Your task to perform on an android device: open app "YouTube Kids" (install if not already installed) Image 0: 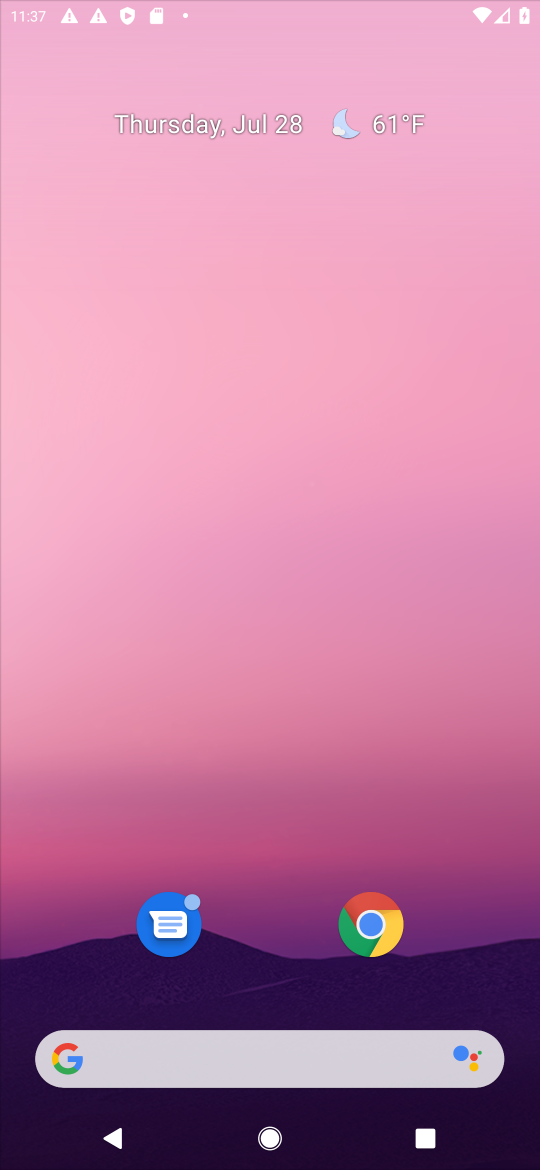
Step 0: press home button
Your task to perform on an android device: open app "YouTube Kids" (install if not already installed) Image 1: 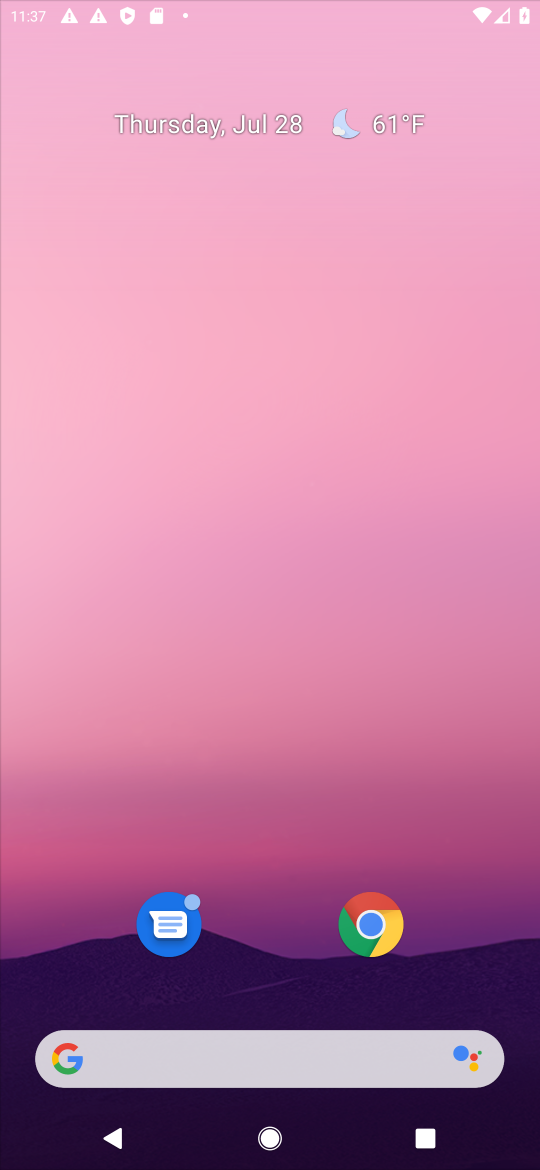
Step 1: drag from (209, 1042) to (190, 352)
Your task to perform on an android device: open app "YouTube Kids" (install if not already installed) Image 2: 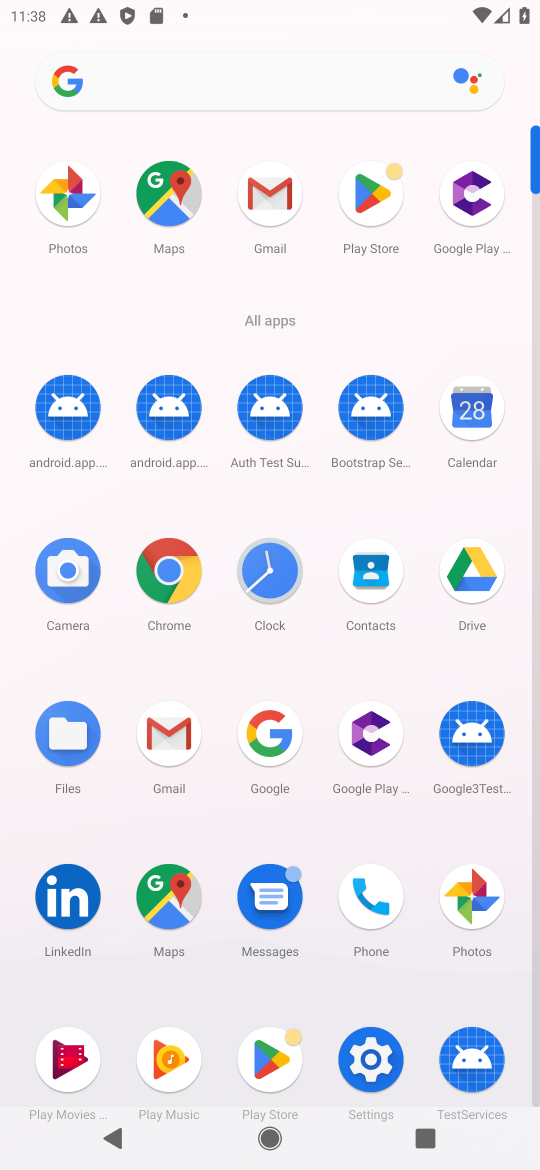
Step 2: click (362, 202)
Your task to perform on an android device: open app "YouTube Kids" (install if not already installed) Image 3: 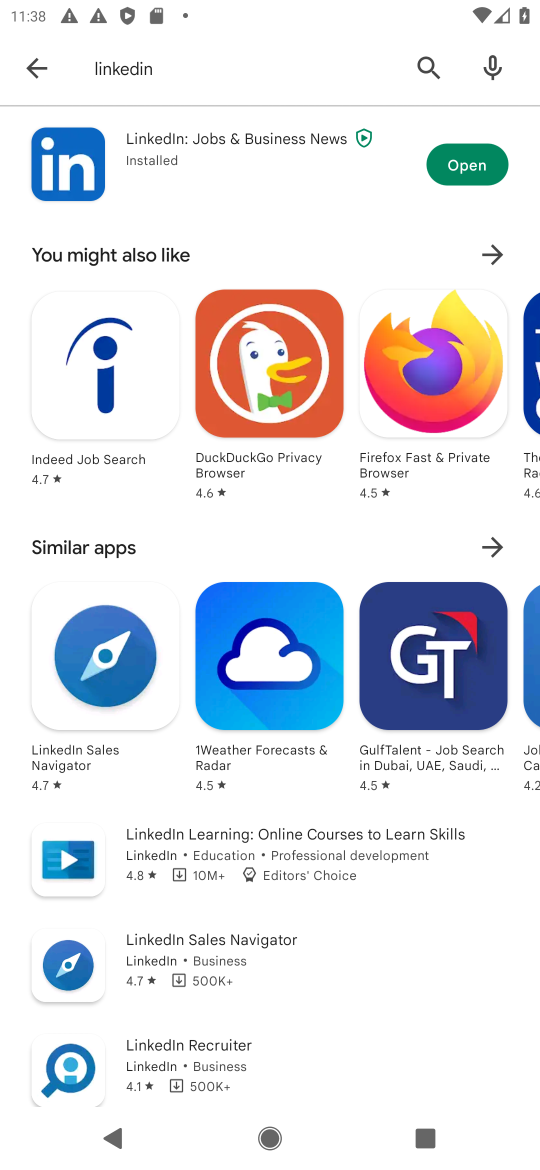
Step 3: click (39, 62)
Your task to perform on an android device: open app "YouTube Kids" (install if not already installed) Image 4: 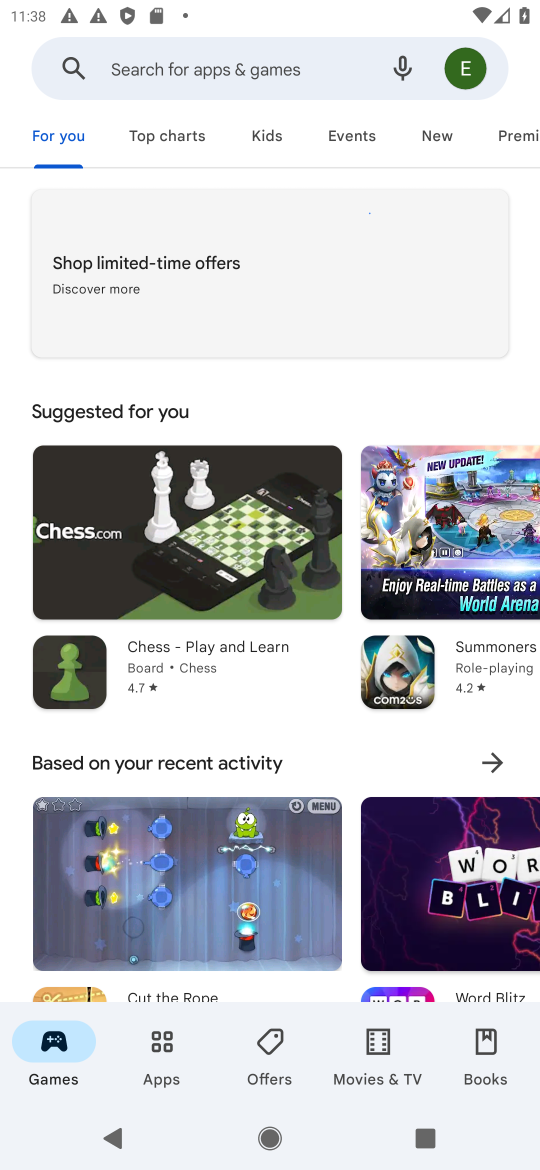
Step 4: click (156, 75)
Your task to perform on an android device: open app "YouTube Kids" (install if not already installed) Image 5: 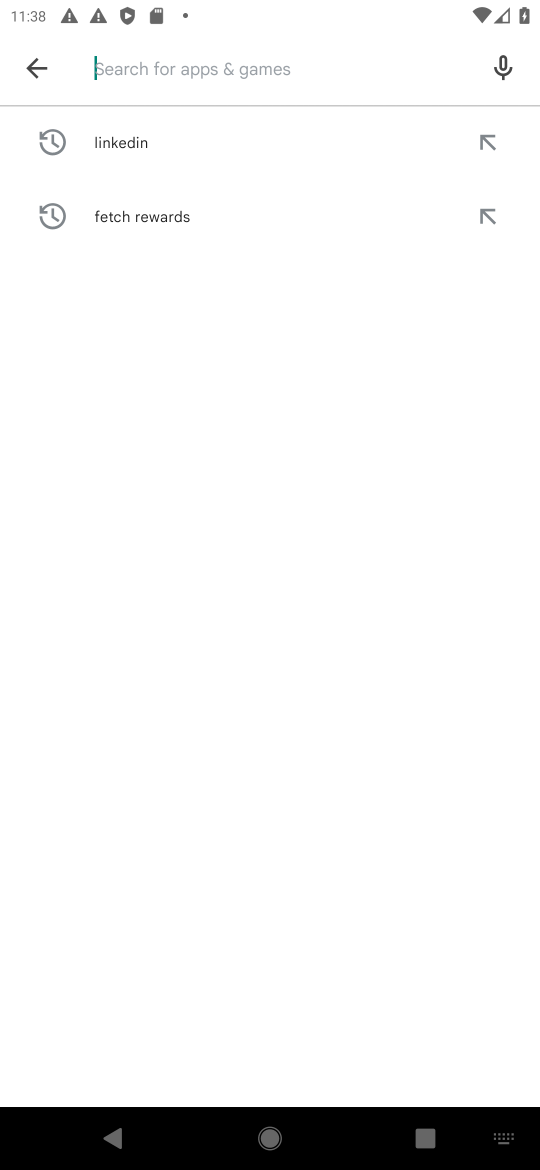
Step 5: type "YouTube Kids"
Your task to perform on an android device: open app "YouTube Kids" (install if not already installed) Image 6: 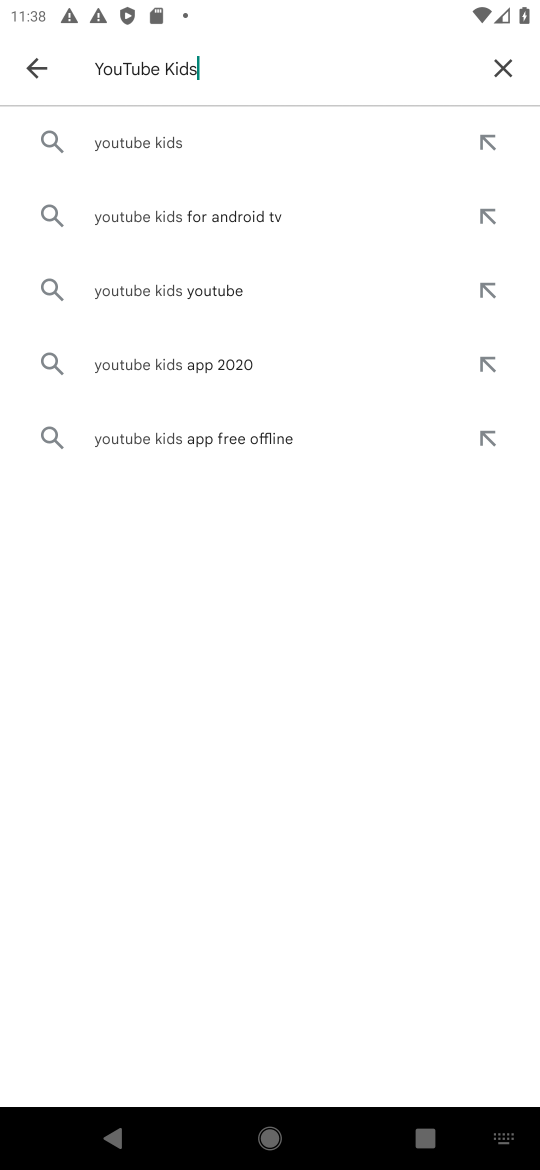
Step 6: click (169, 144)
Your task to perform on an android device: open app "YouTube Kids" (install if not already installed) Image 7: 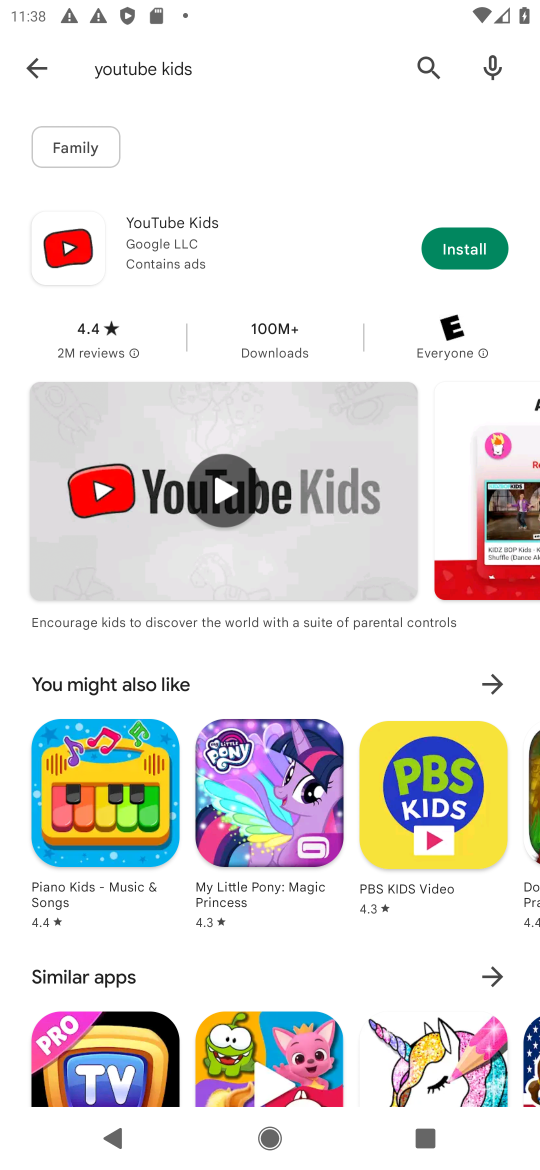
Step 7: click (462, 251)
Your task to perform on an android device: open app "YouTube Kids" (install if not already installed) Image 8: 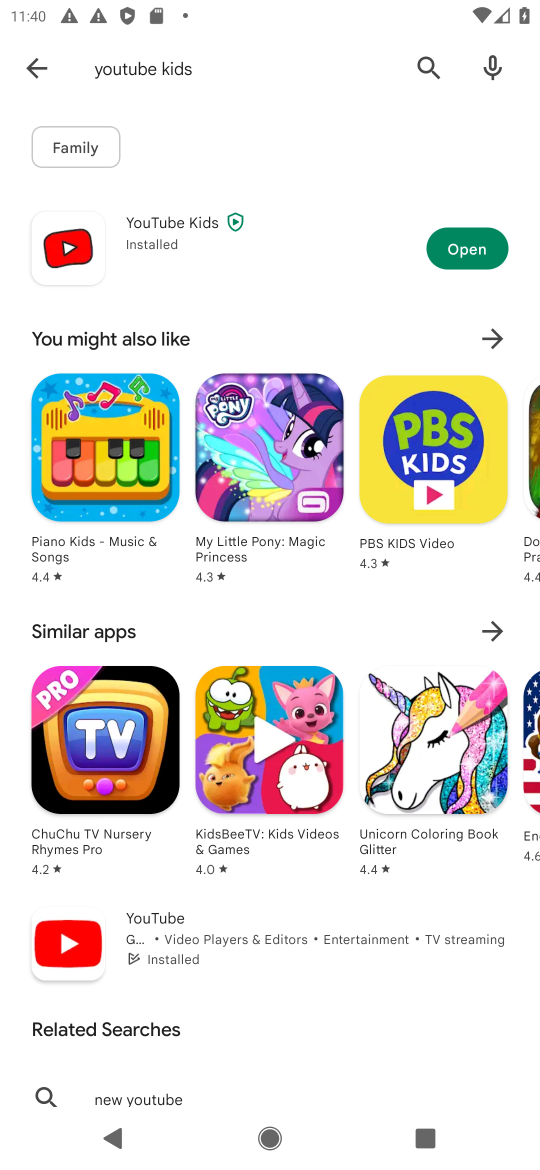
Step 8: click (485, 251)
Your task to perform on an android device: open app "YouTube Kids" (install if not already installed) Image 9: 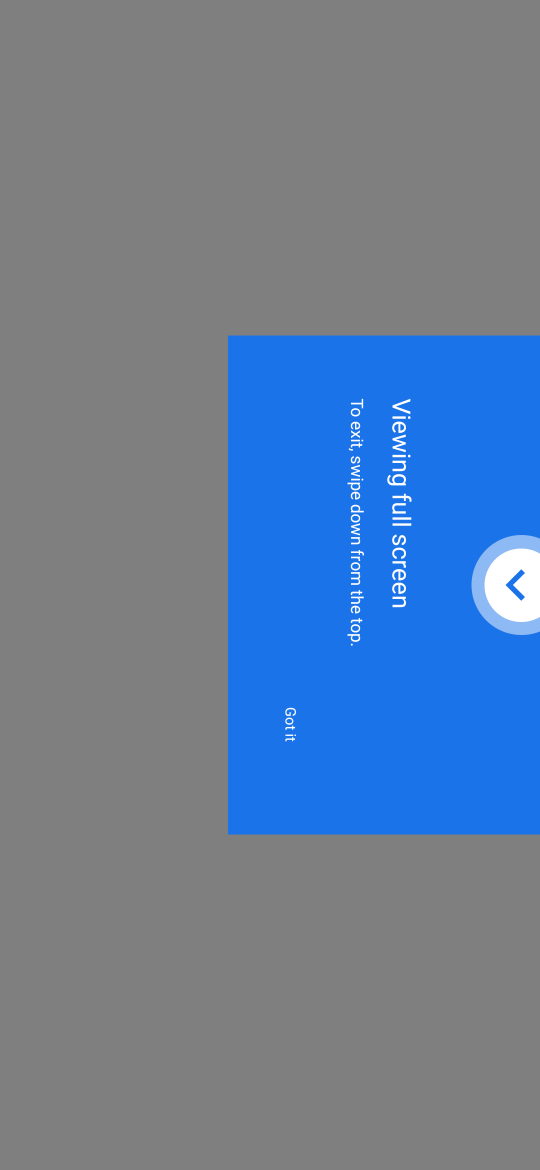
Step 9: task complete